Your task to perform on an android device: turn notification dots on Image 0: 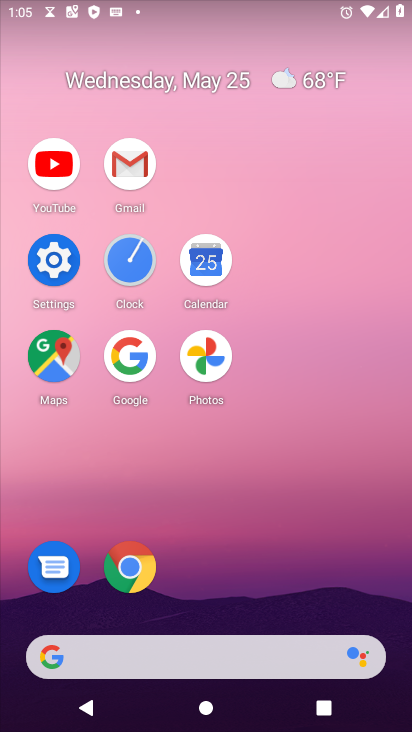
Step 0: click (61, 261)
Your task to perform on an android device: turn notification dots on Image 1: 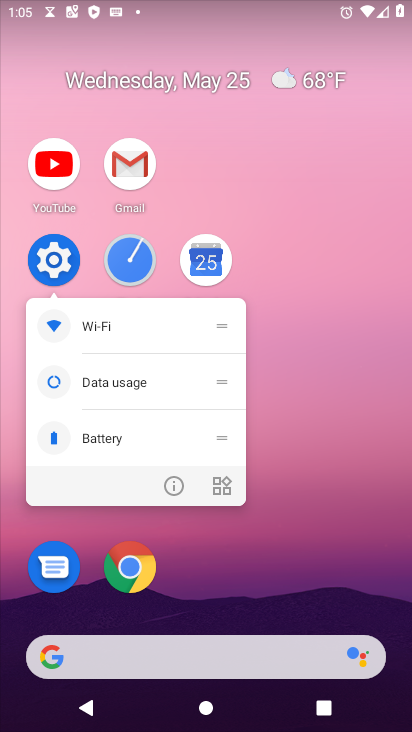
Step 1: click (61, 261)
Your task to perform on an android device: turn notification dots on Image 2: 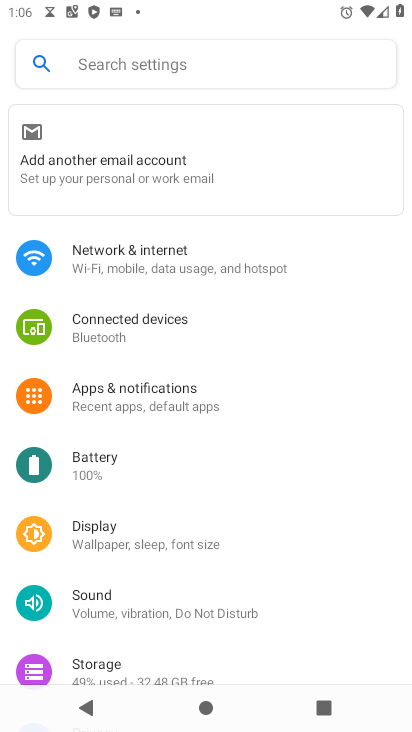
Step 2: click (161, 395)
Your task to perform on an android device: turn notification dots on Image 3: 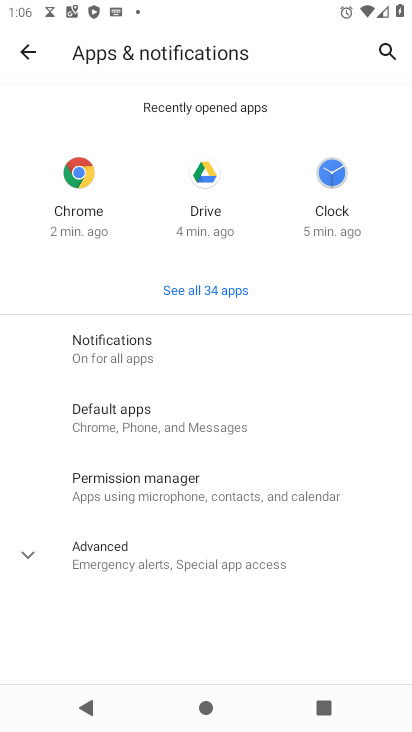
Step 3: drag from (221, 510) to (190, 194)
Your task to perform on an android device: turn notification dots on Image 4: 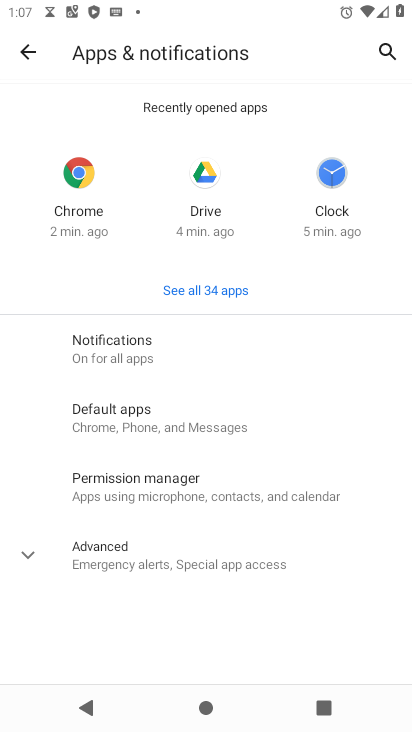
Step 4: click (126, 346)
Your task to perform on an android device: turn notification dots on Image 5: 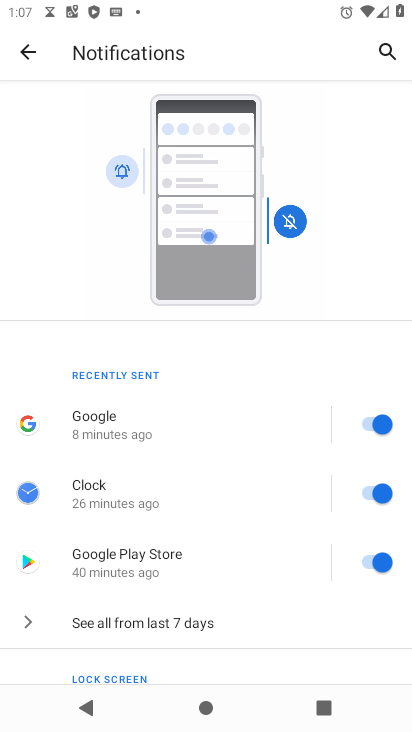
Step 5: drag from (179, 570) to (265, 227)
Your task to perform on an android device: turn notification dots on Image 6: 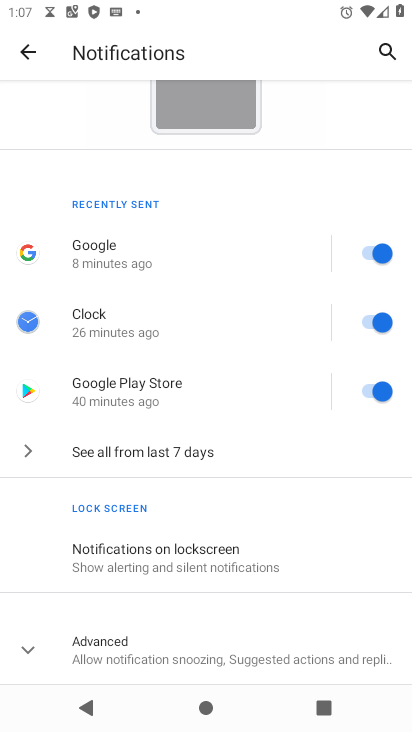
Step 6: click (261, 643)
Your task to perform on an android device: turn notification dots on Image 7: 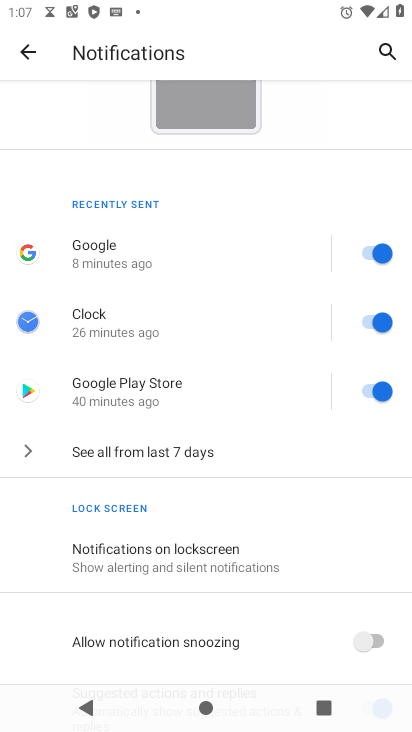
Step 7: task complete